Your task to perform on an android device: turn off location Image 0: 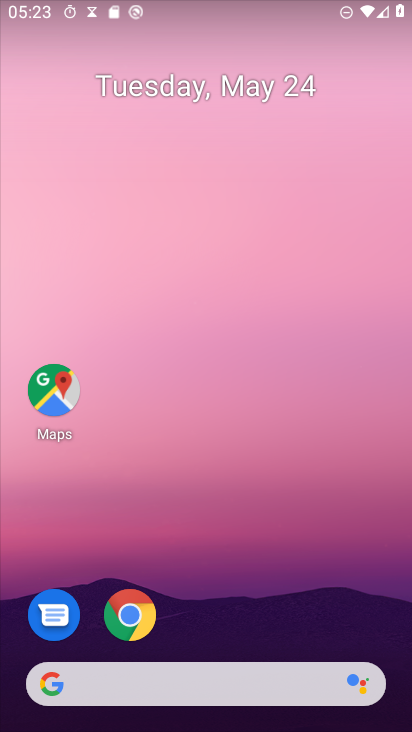
Step 0: drag from (205, 613) to (244, 102)
Your task to perform on an android device: turn off location Image 1: 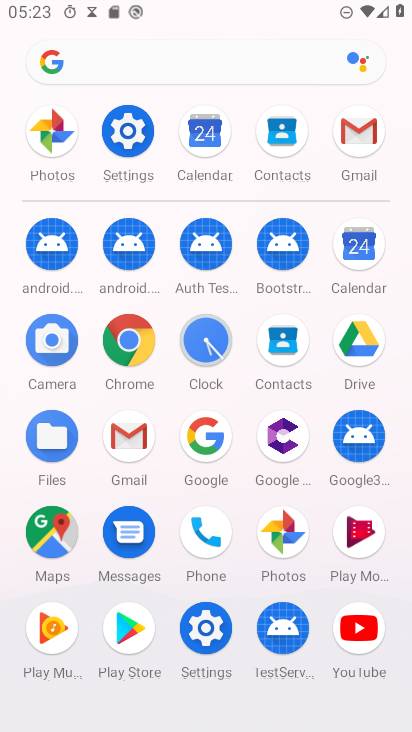
Step 1: click (142, 128)
Your task to perform on an android device: turn off location Image 2: 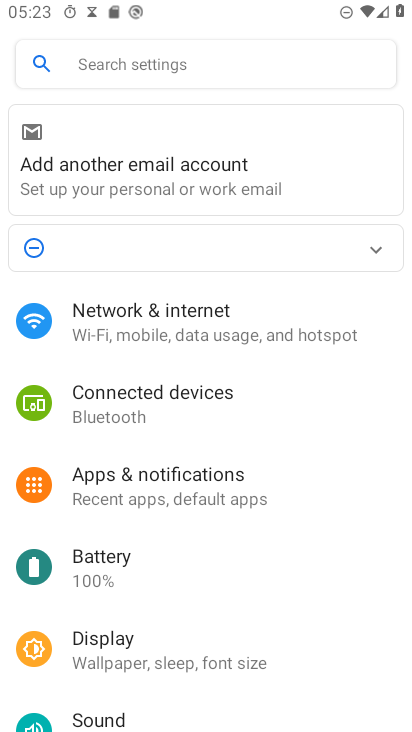
Step 2: drag from (138, 654) to (216, 133)
Your task to perform on an android device: turn off location Image 3: 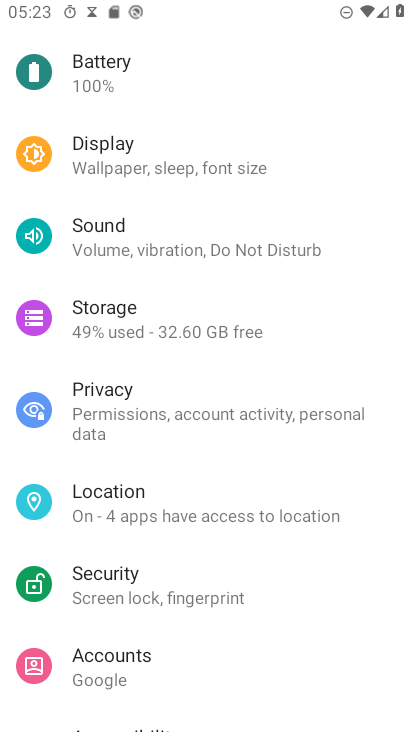
Step 3: click (130, 506)
Your task to perform on an android device: turn off location Image 4: 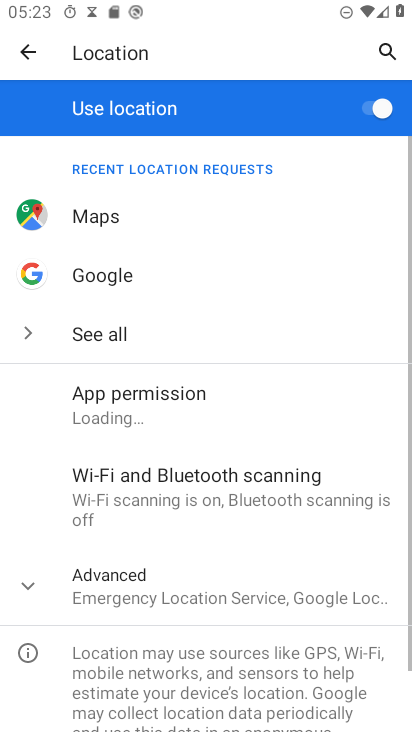
Step 4: click (380, 106)
Your task to perform on an android device: turn off location Image 5: 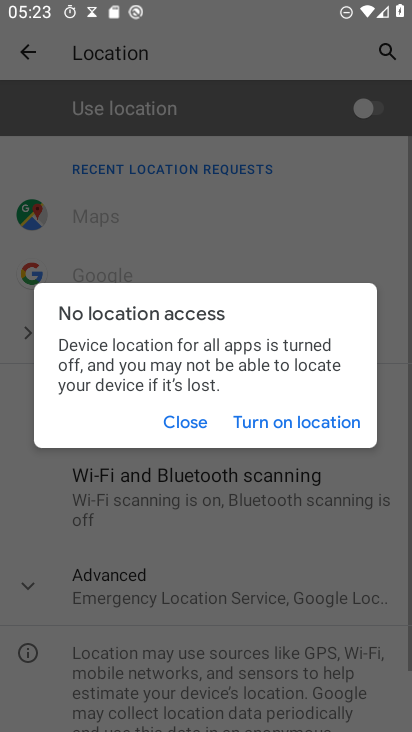
Step 5: task complete